Your task to perform on an android device: turn on the 12-hour format for clock Image 0: 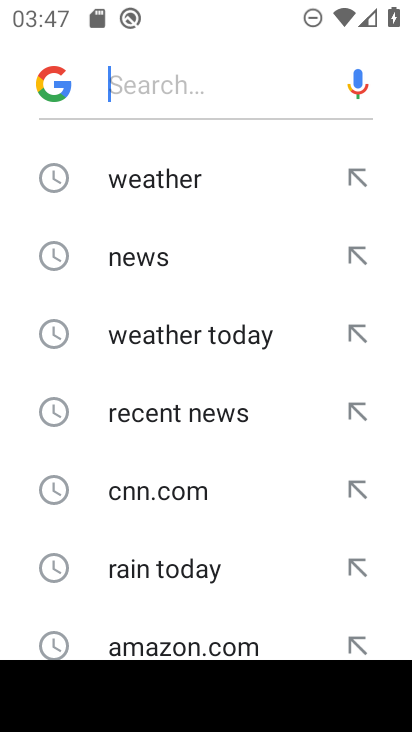
Step 0: press back button
Your task to perform on an android device: turn on the 12-hour format for clock Image 1: 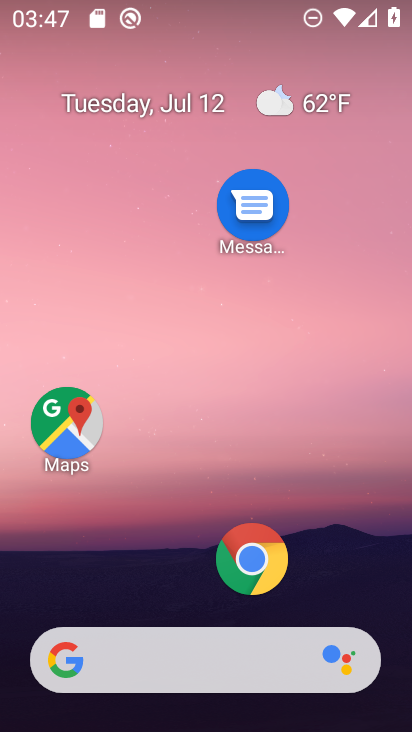
Step 1: drag from (121, 594) to (257, 28)
Your task to perform on an android device: turn on the 12-hour format for clock Image 2: 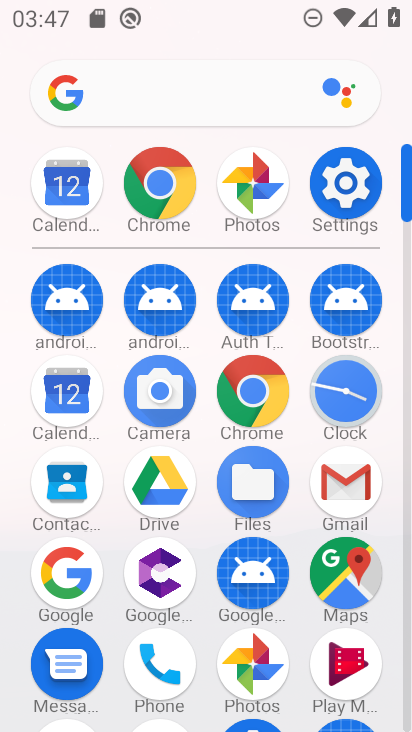
Step 2: click (353, 395)
Your task to perform on an android device: turn on the 12-hour format for clock Image 3: 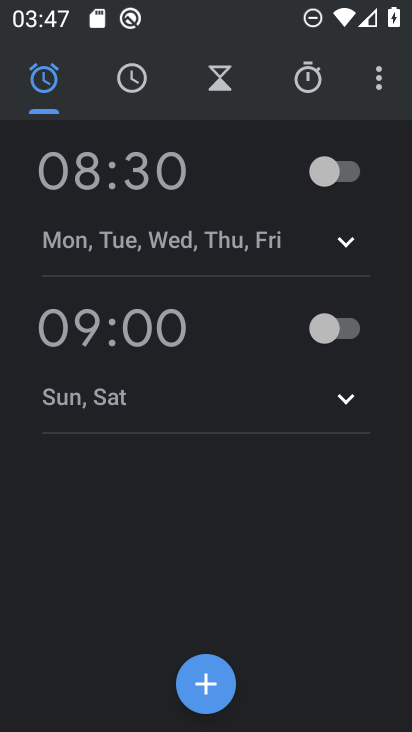
Step 3: click (377, 83)
Your task to perform on an android device: turn on the 12-hour format for clock Image 4: 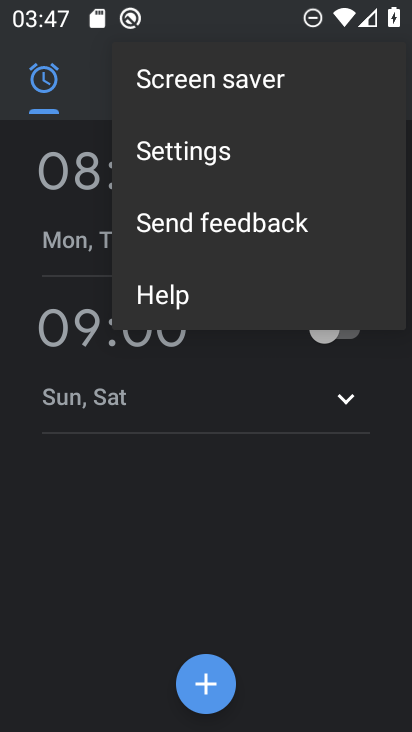
Step 4: click (199, 162)
Your task to perform on an android device: turn on the 12-hour format for clock Image 5: 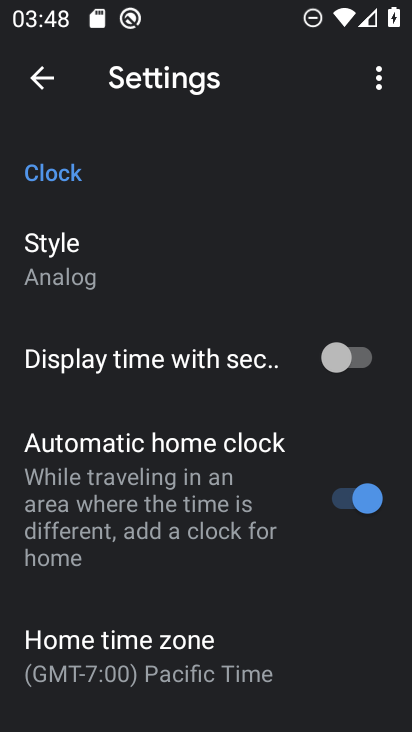
Step 5: drag from (207, 652) to (276, 169)
Your task to perform on an android device: turn on the 12-hour format for clock Image 6: 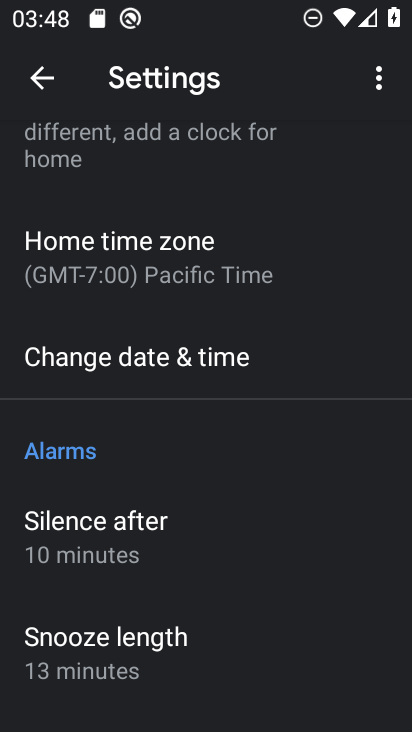
Step 6: click (126, 341)
Your task to perform on an android device: turn on the 12-hour format for clock Image 7: 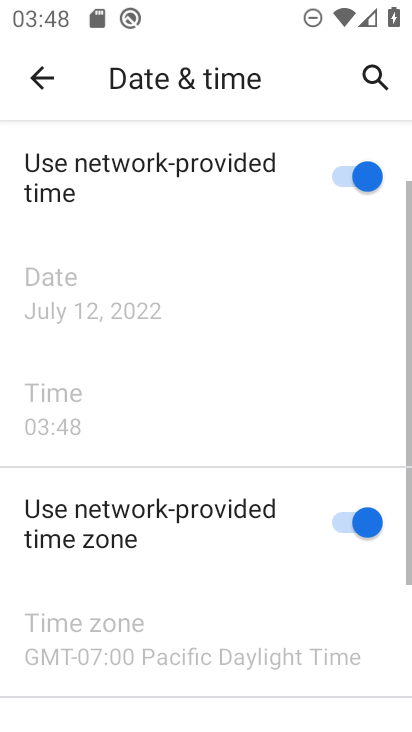
Step 7: drag from (170, 649) to (285, 46)
Your task to perform on an android device: turn on the 12-hour format for clock Image 8: 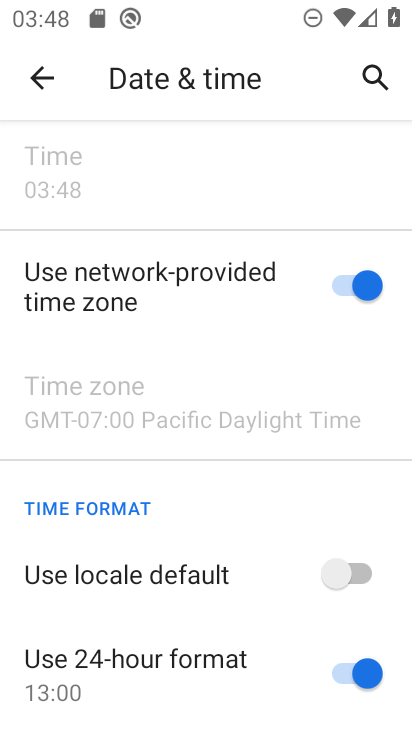
Step 8: click (338, 574)
Your task to perform on an android device: turn on the 12-hour format for clock Image 9: 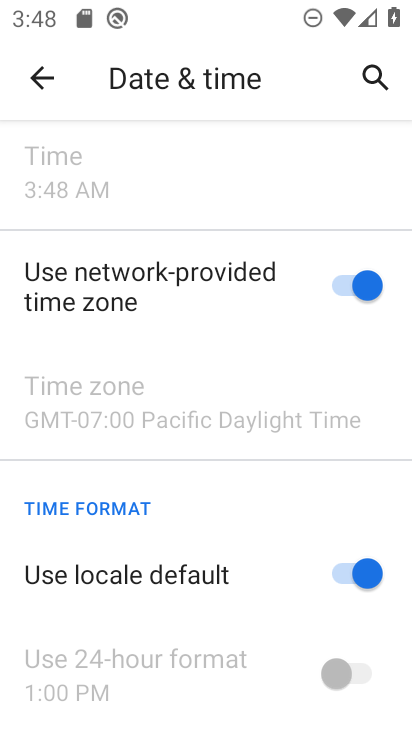
Step 9: task complete